Your task to perform on an android device: delete a single message in the gmail app Image 0: 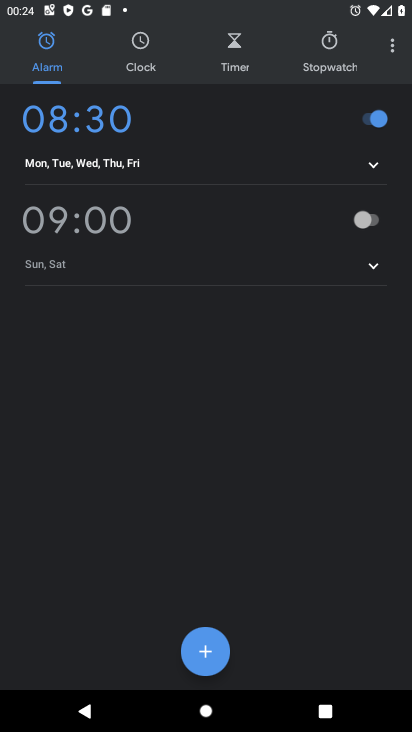
Step 0: press home button
Your task to perform on an android device: delete a single message in the gmail app Image 1: 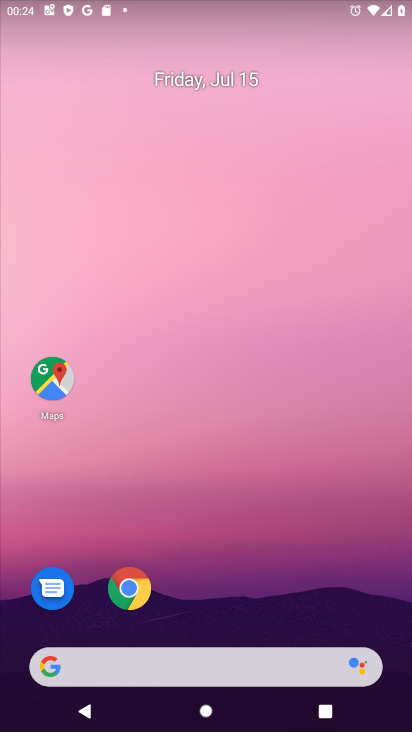
Step 1: drag from (157, 657) to (260, 199)
Your task to perform on an android device: delete a single message in the gmail app Image 2: 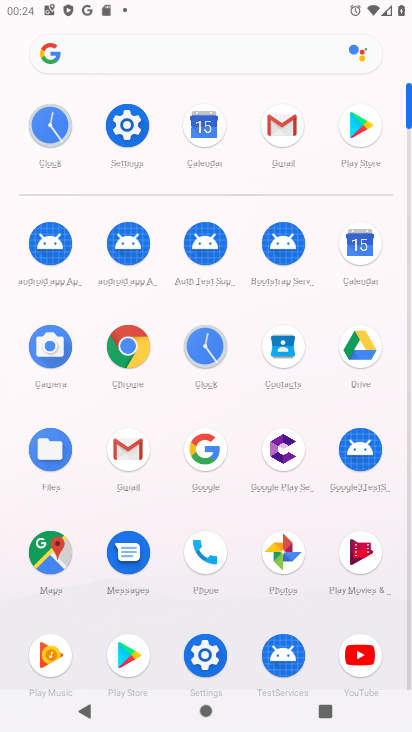
Step 2: click (284, 128)
Your task to perform on an android device: delete a single message in the gmail app Image 3: 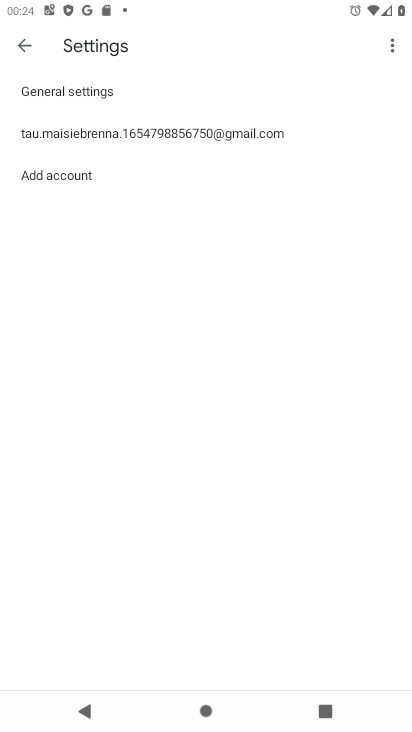
Step 3: click (22, 46)
Your task to perform on an android device: delete a single message in the gmail app Image 4: 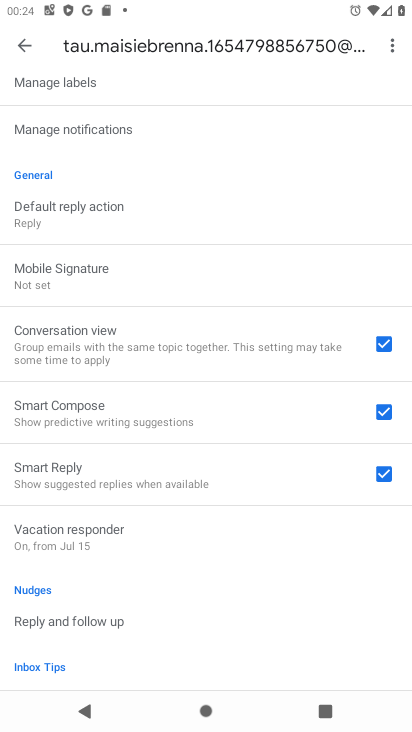
Step 4: click (28, 48)
Your task to perform on an android device: delete a single message in the gmail app Image 5: 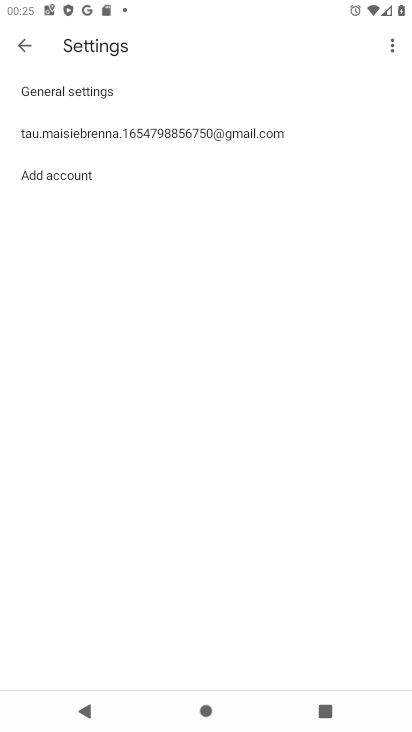
Step 5: click (23, 49)
Your task to perform on an android device: delete a single message in the gmail app Image 6: 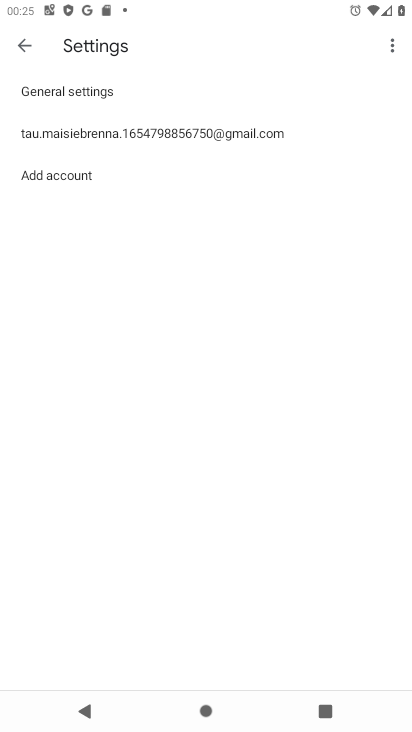
Step 6: click (27, 45)
Your task to perform on an android device: delete a single message in the gmail app Image 7: 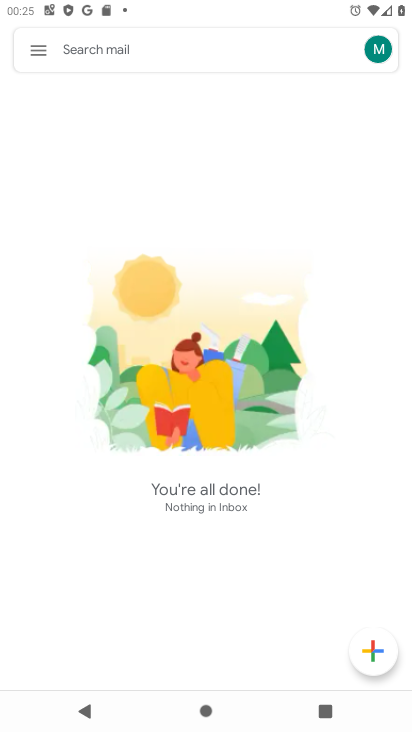
Step 7: task complete